Your task to perform on an android device: Search for hotels in Zurich Image 0: 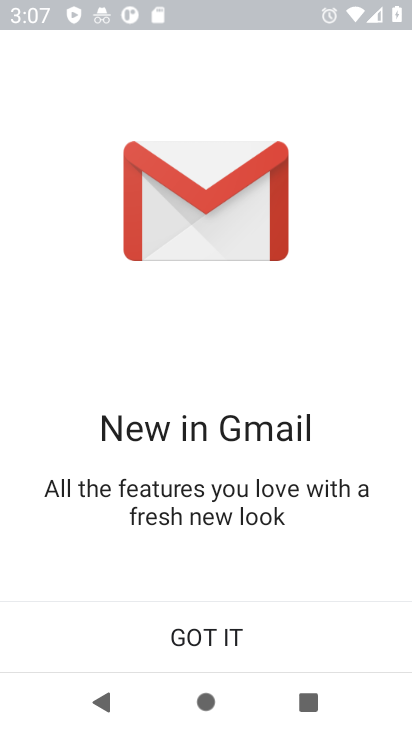
Step 0: press home button
Your task to perform on an android device: Search for hotels in Zurich Image 1: 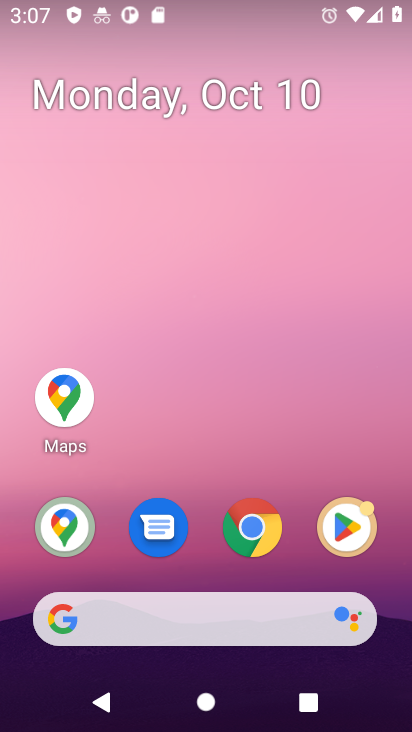
Step 1: click (57, 396)
Your task to perform on an android device: Search for hotels in Zurich Image 2: 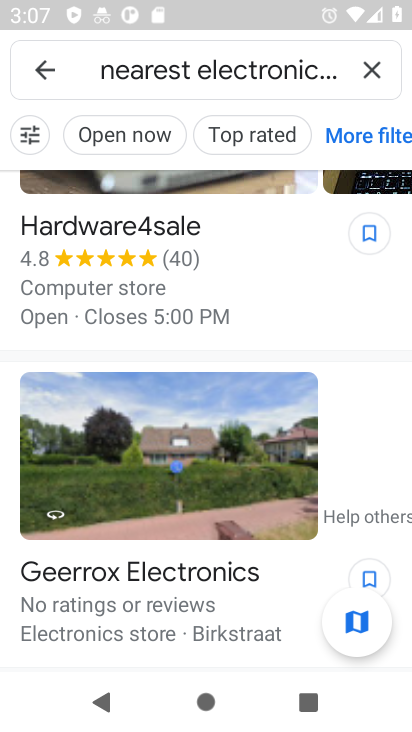
Step 2: click (367, 68)
Your task to perform on an android device: Search for hotels in Zurich Image 3: 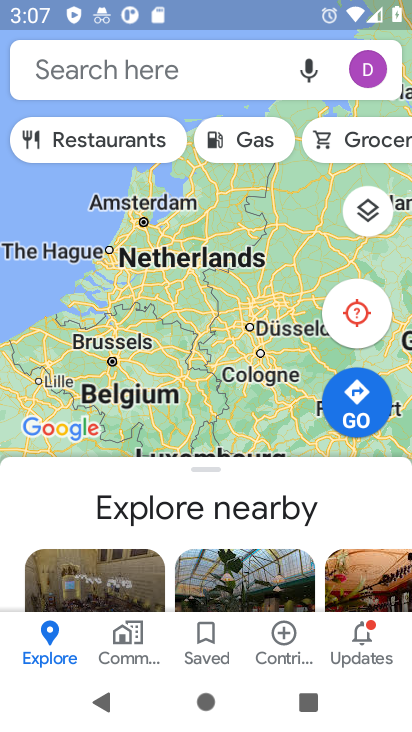
Step 3: click (193, 73)
Your task to perform on an android device: Search for hotels in Zurich Image 4: 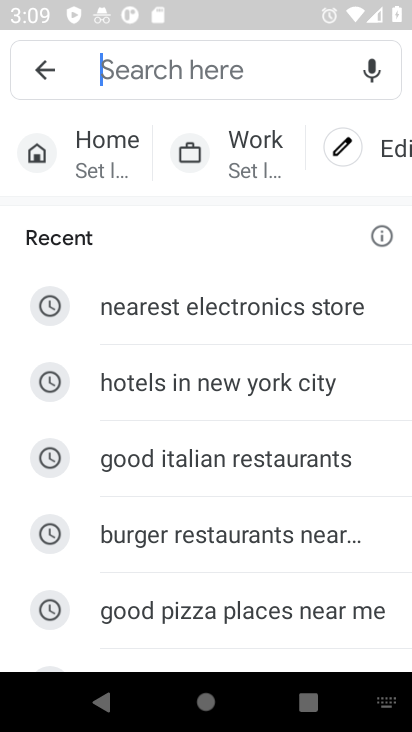
Step 4: type "hotels in Zurich"
Your task to perform on an android device: Search for hotels in Zurich Image 5: 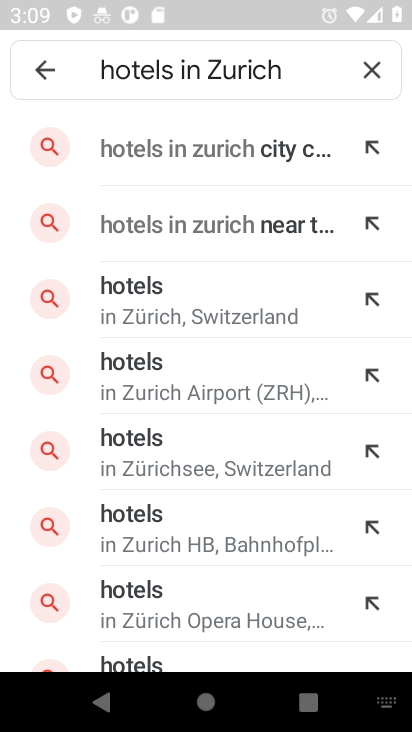
Step 5: click (146, 290)
Your task to perform on an android device: Search for hotels in Zurich Image 6: 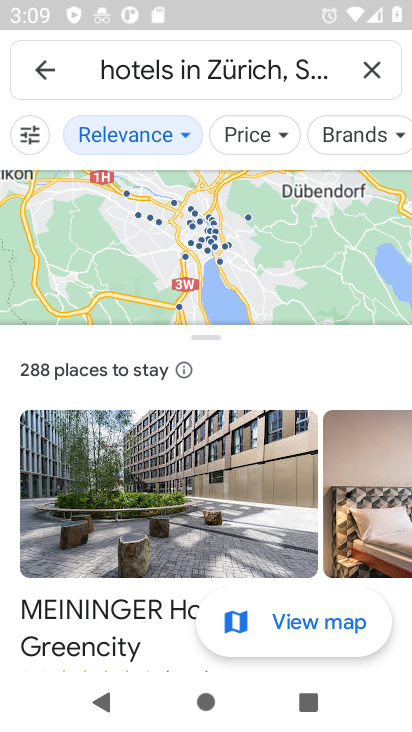
Step 6: task complete